Your task to perform on an android device: turn on the 24-hour format for clock Image 0: 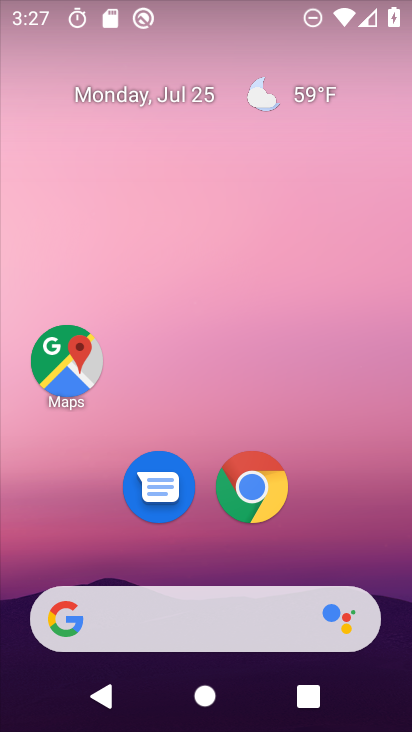
Step 0: drag from (168, 498) to (282, 62)
Your task to perform on an android device: turn on the 24-hour format for clock Image 1: 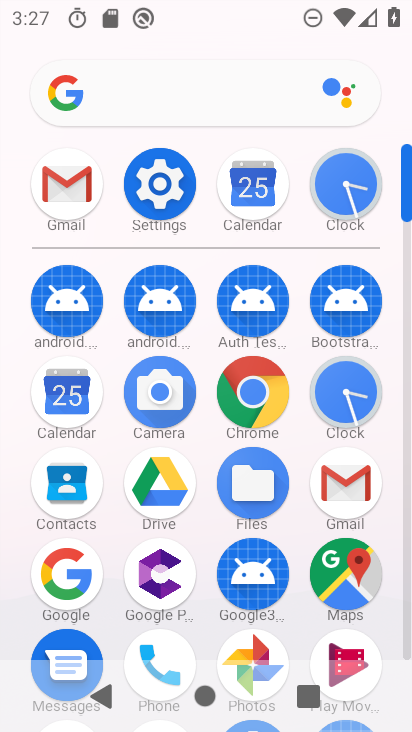
Step 1: click (332, 191)
Your task to perform on an android device: turn on the 24-hour format for clock Image 2: 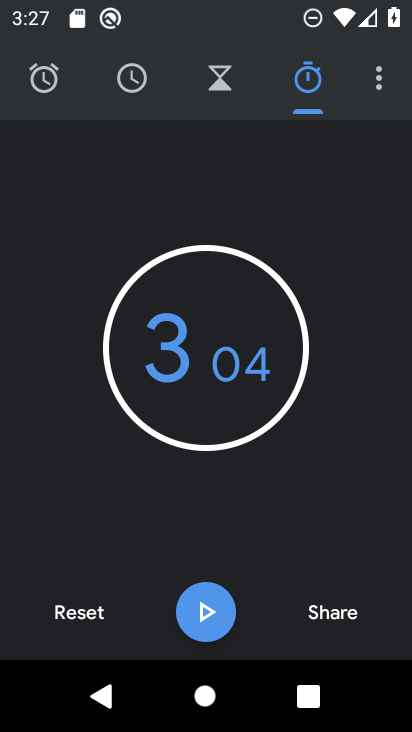
Step 2: click (382, 74)
Your task to perform on an android device: turn on the 24-hour format for clock Image 3: 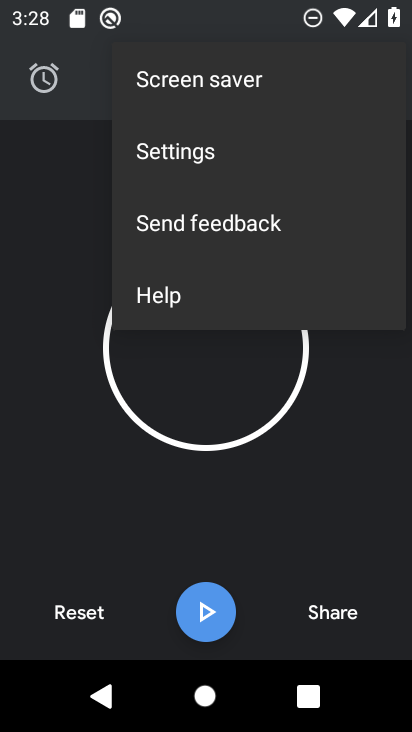
Step 3: click (166, 153)
Your task to perform on an android device: turn on the 24-hour format for clock Image 4: 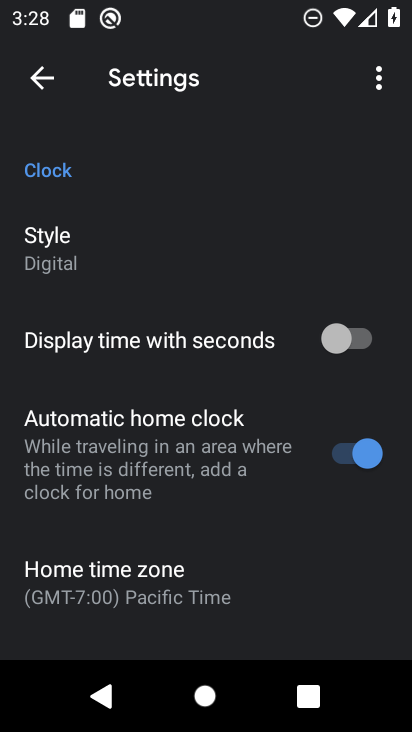
Step 4: drag from (151, 554) to (272, 90)
Your task to perform on an android device: turn on the 24-hour format for clock Image 5: 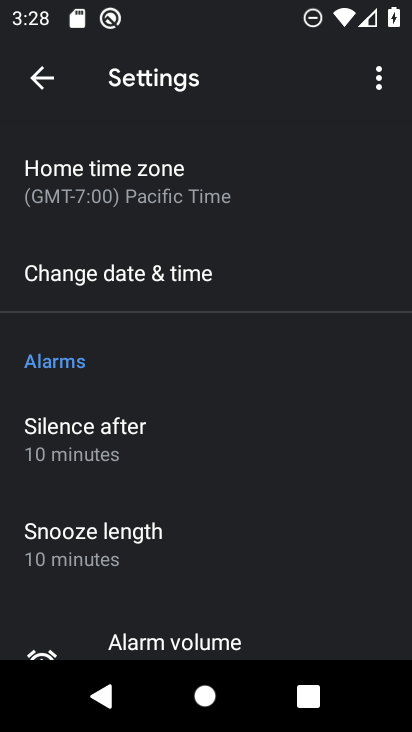
Step 5: drag from (137, 571) to (187, 481)
Your task to perform on an android device: turn on the 24-hour format for clock Image 6: 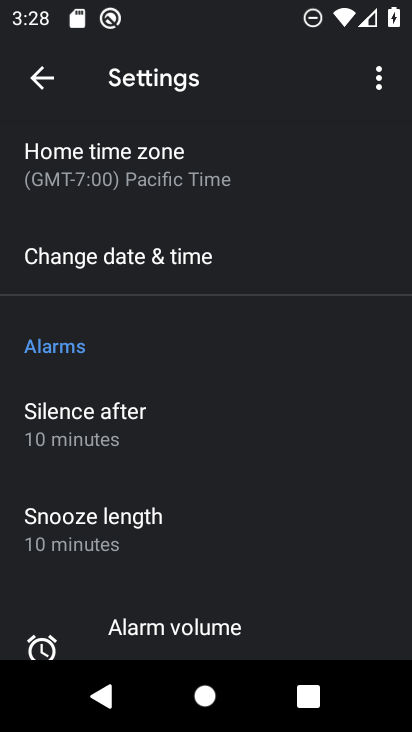
Step 6: click (119, 257)
Your task to perform on an android device: turn on the 24-hour format for clock Image 7: 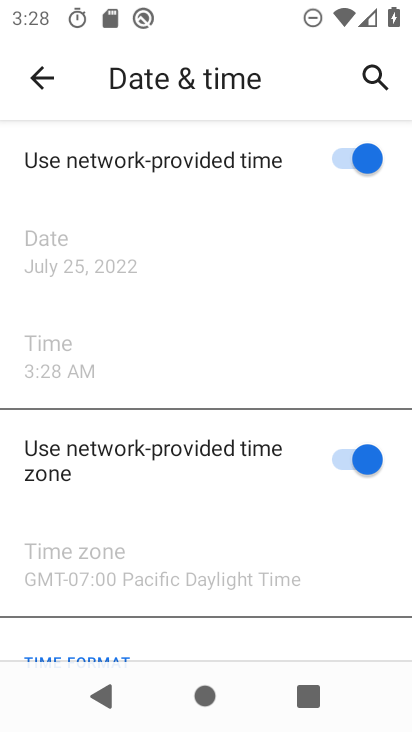
Step 7: drag from (158, 585) to (255, 1)
Your task to perform on an android device: turn on the 24-hour format for clock Image 8: 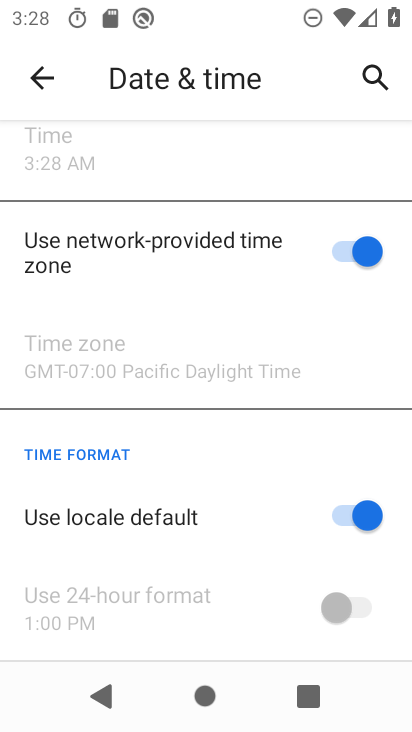
Step 8: click (361, 517)
Your task to perform on an android device: turn on the 24-hour format for clock Image 9: 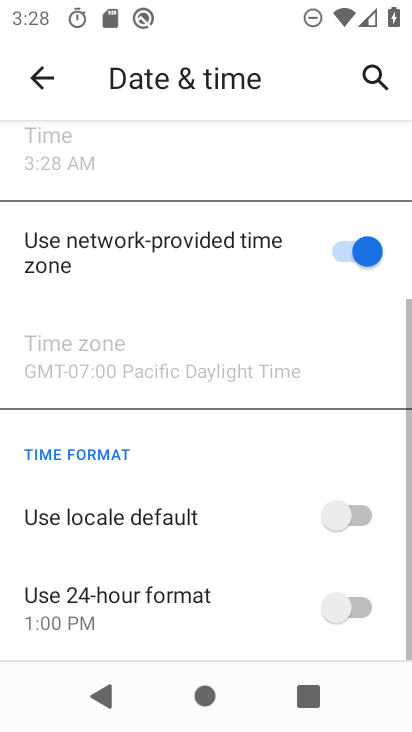
Step 9: click (334, 616)
Your task to perform on an android device: turn on the 24-hour format for clock Image 10: 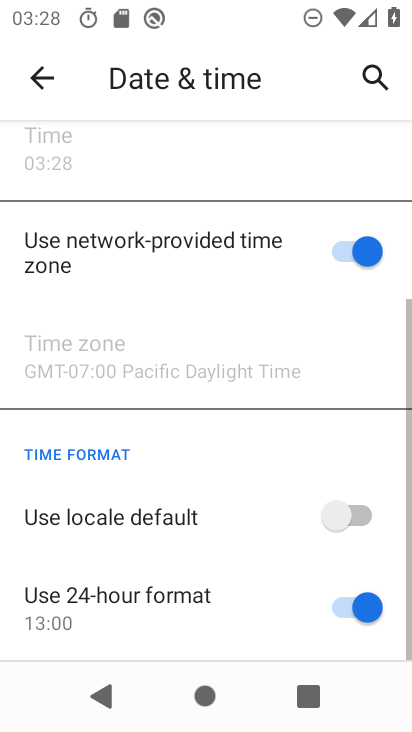
Step 10: task complete